Your task to perform on an android device: Open Google Chrome Image 0: 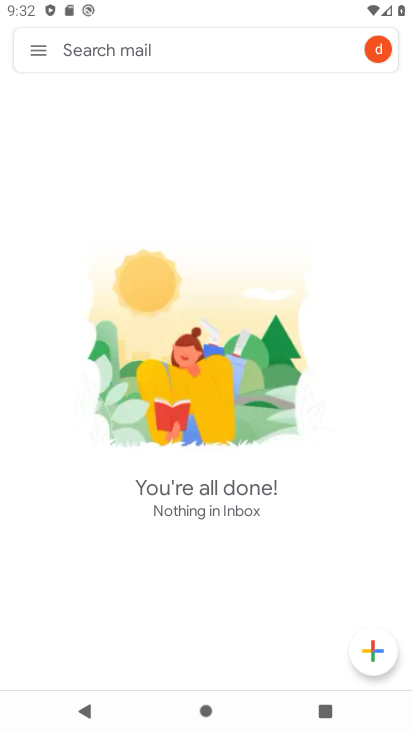
Step 0: press home button
Your task to perform on an android device: Open Google Chrome Image 1: 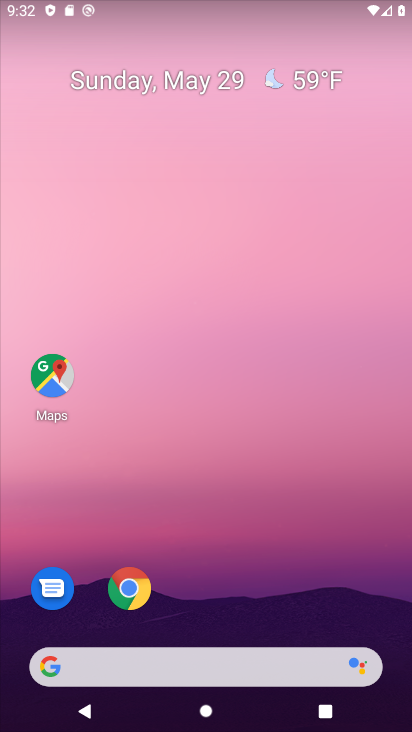
Step 1: click (147, 596)
Your task to perform on an android device: Open Google Chrome Image 2: 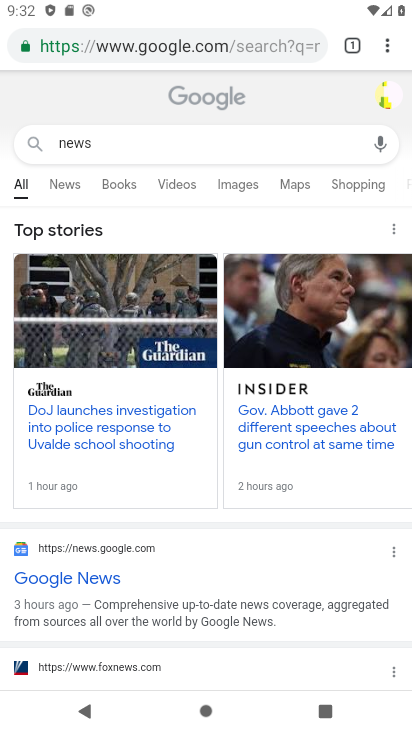
Step 2: task complete